Your task to perform on an android device: change the clock display to digital Image 0: 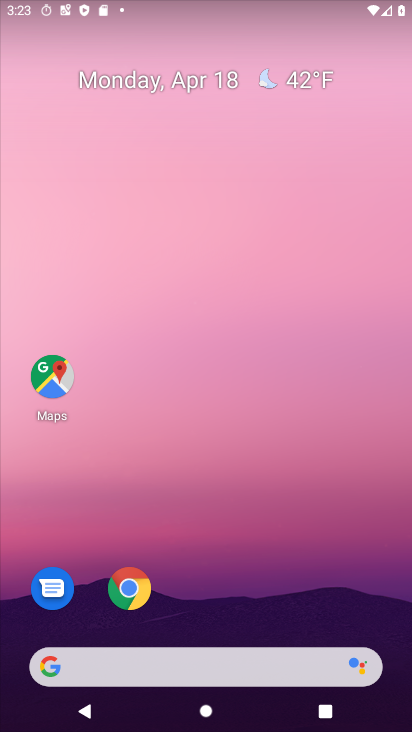
Step 0: drag from (213, 625) to (215, 110)
Your task to perform on an android device: change the clock display to digital Image 1: 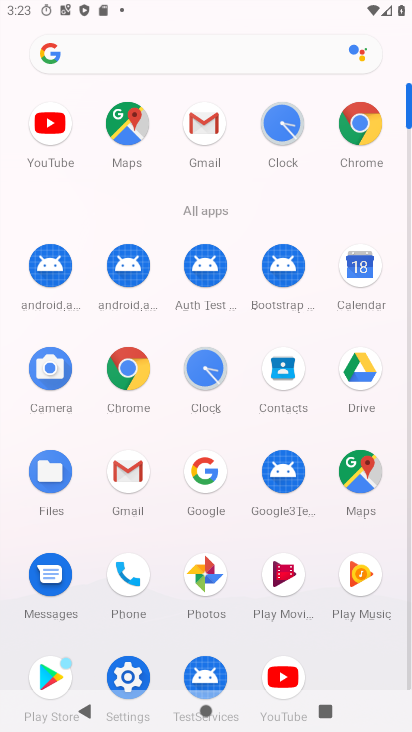
Step 1: click (285, 127)
Your task to perform on an android device: change the clock display to digital Image 2: 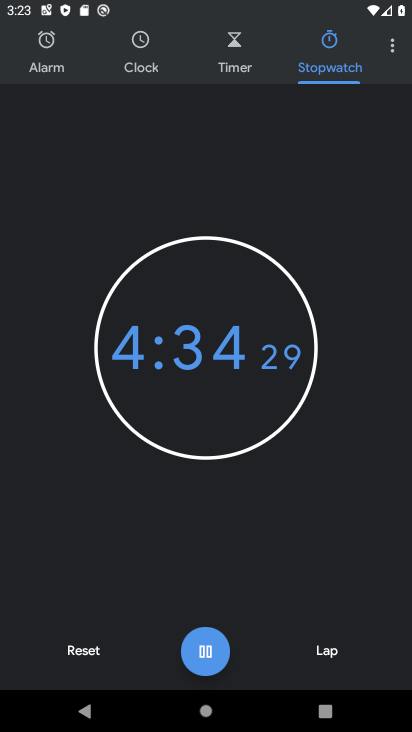
Step 2: click (391, 50)
Your task to perform on an android device: change the clock display to digital Image 3: 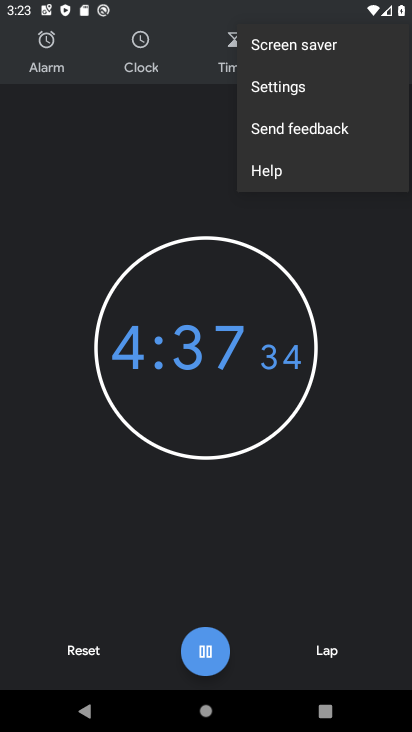
Step 3: click (272, 99)
Your task to perform on an android device: change the clock display to digital Image 4: 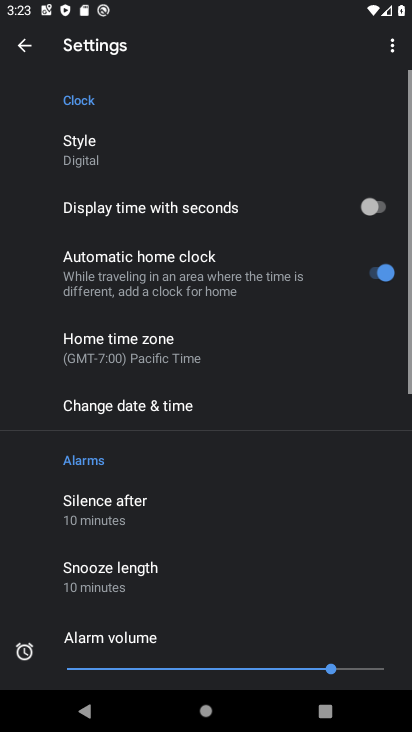
Step 4: click (157, 160)
Your task to perform on an android device: change the clock display to digital Image 5: 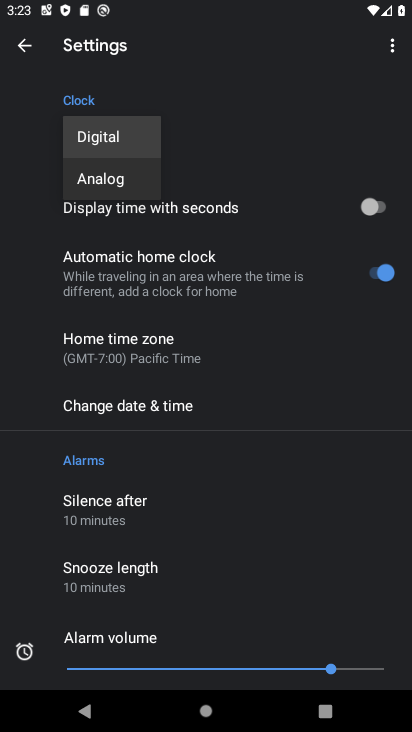
Step 5: task complete